Your task to perform on an android device: check the backup settings in the google photos Image 0: 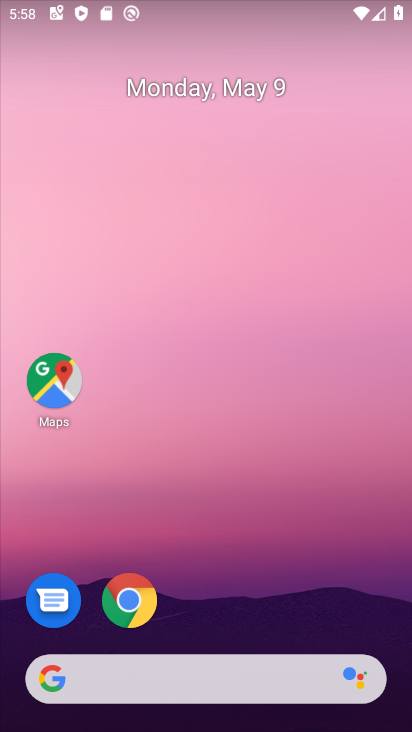
Step 0: drag from (209, 615) to (250, 149)
Your task to perform on an android device: check the backup settings in the google photos Image 1: 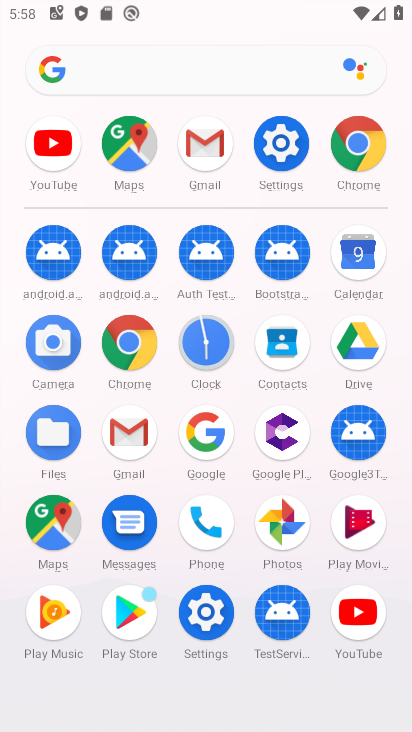
Step 1: click (280, 545)
Your task to perform on an android device: check the backup settings in the google photos Image 2: 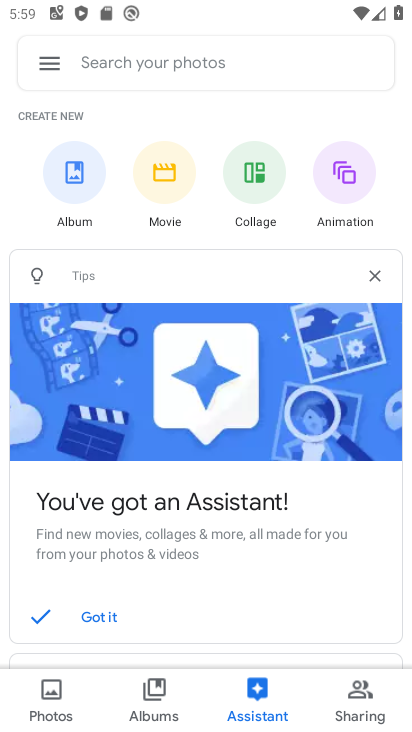
Step 2: drag from (215, 580) to (202, 413)
Your task to perform on an android device: check the backup settings in the google photos Image 3: 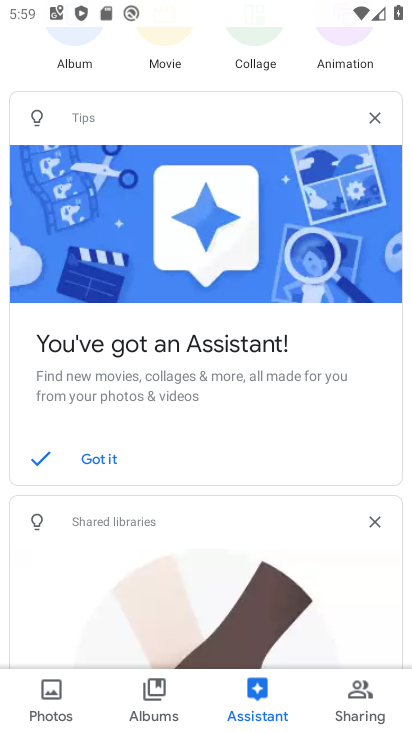
Step 3: drag from (77, 145) to (67, 414)
Your task to perform on an android device: check the backup settings in the google photos Image 4: 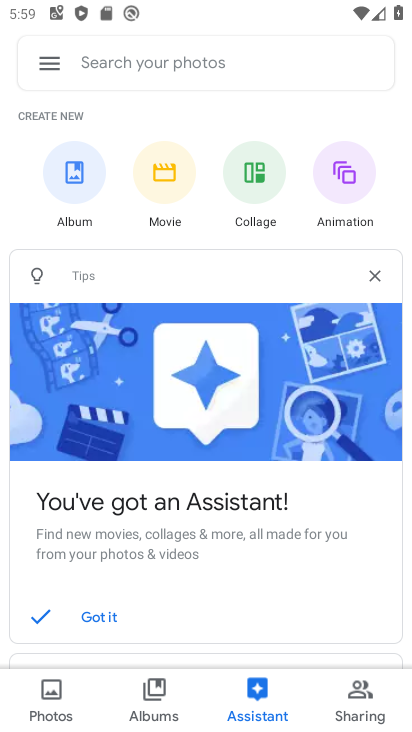
Step 4: click (51, 47)
Your task to perform on an android device: check the backup settings in the google photos Image 5: 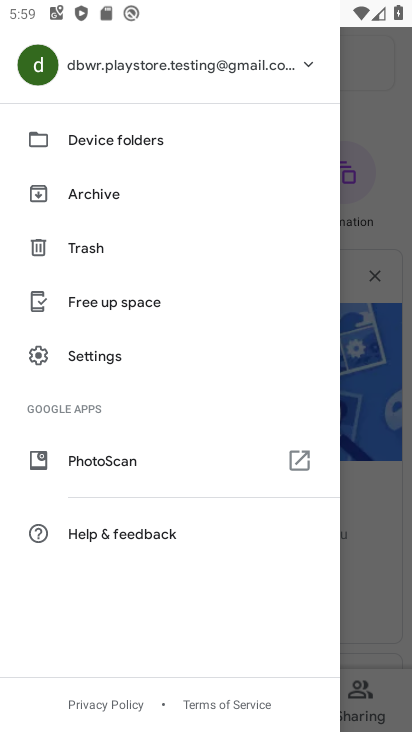
Step 5: click (97, 355)
Your task to perform on an android device: check the backup settings in the google photos Image 6: 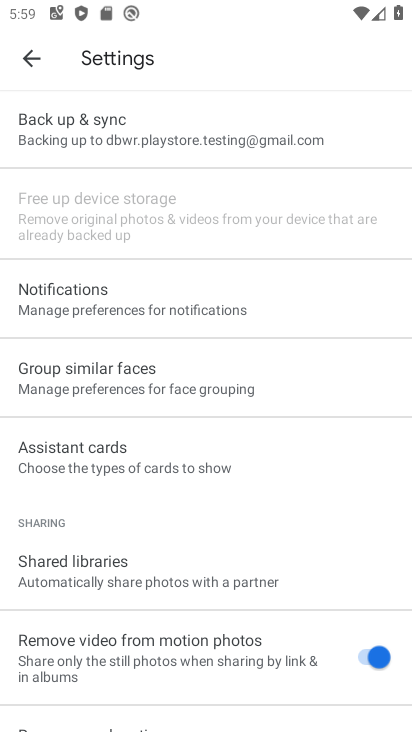
Step 6: click (126, 147)
Your task to perform on an android device: check the backup settings in the google photos Image 7: 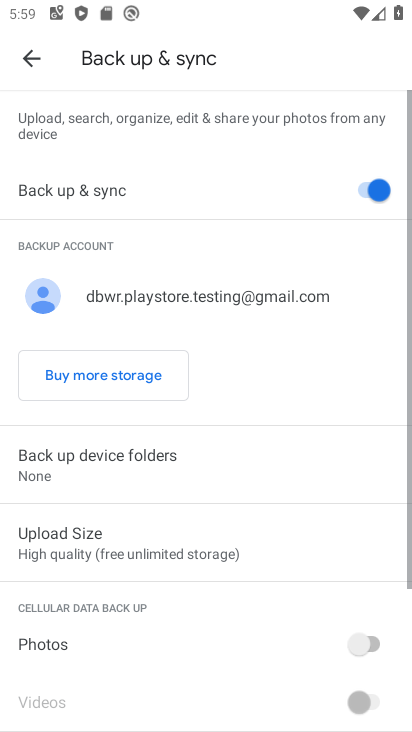
Step 7: task complete